Your task to perform on an android device: turn on showing notifications on the lock screen Image 0: 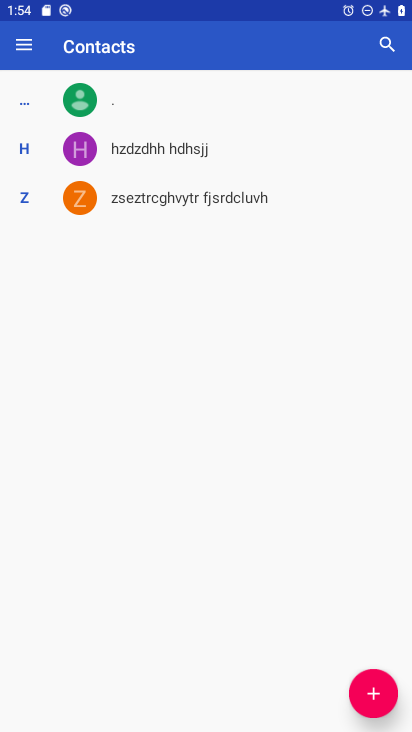
Step 0: press home button
Your task to perform on an android device: turn on showing notifications on the lock screen Image 1: 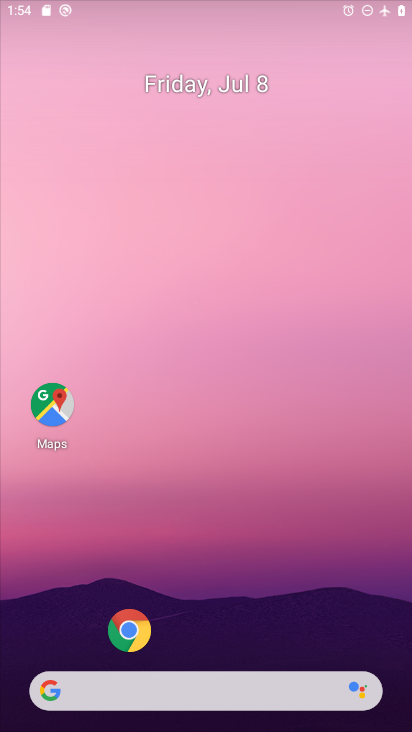
Step 1: drag from (309, 695) to (294, 100)
Your task to perform on an android device: turn on showing notifications on the lock screen Image 2: 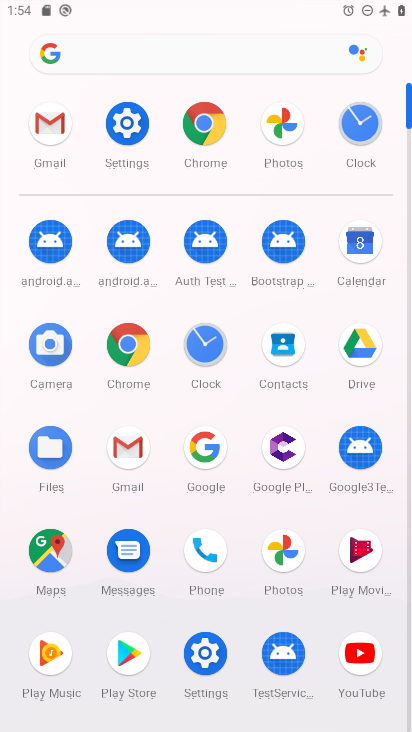
Step 2: click (131, 111)
Your task to perform on an android device: turn on showing notifications on the lock screen Image 3: 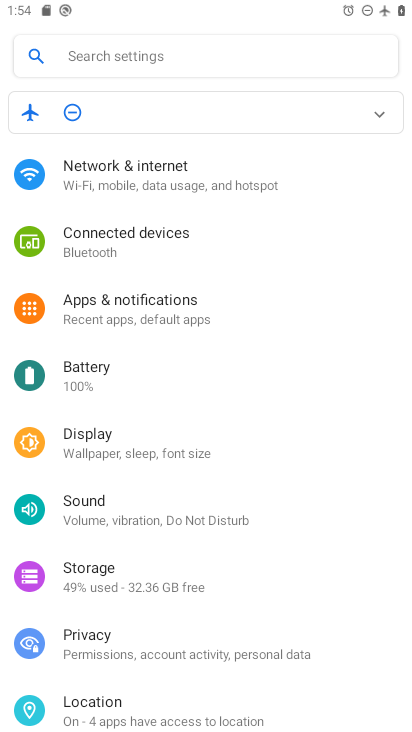
Step 3: click (119, 292)
Your task to perform on an android device: turn on showing notifications on the lock screen Image 4: 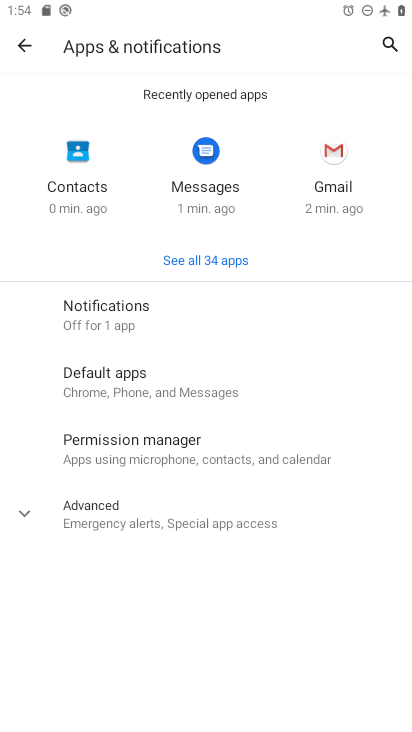
Step 4: click (159, 318)
Your task to perform on an android device: turn on showing notifications on the lock screen Image 5: 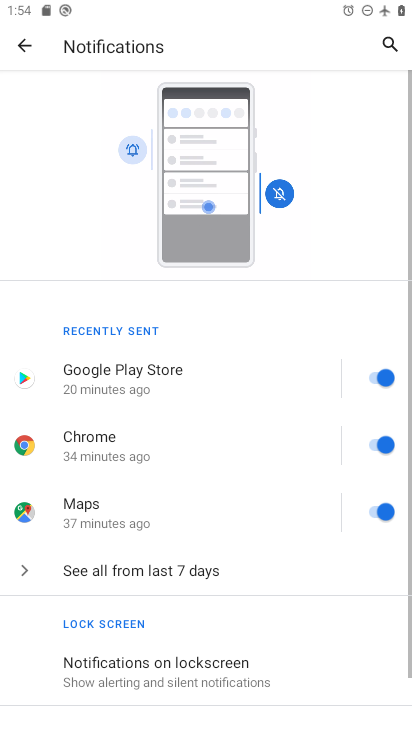
Step 5: click (248, 678)
Your task to perform on an android device: turn on showing notifications on the lock screen Image 6: 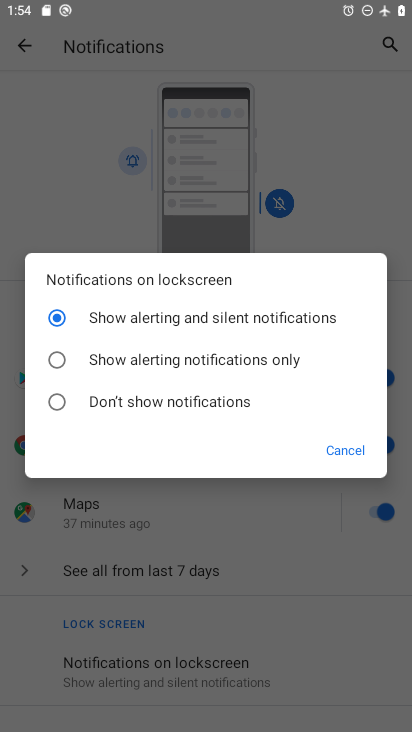
Step 6: task complete